Your task to perform on an android device: Open Chrome and go to settings Image 0: 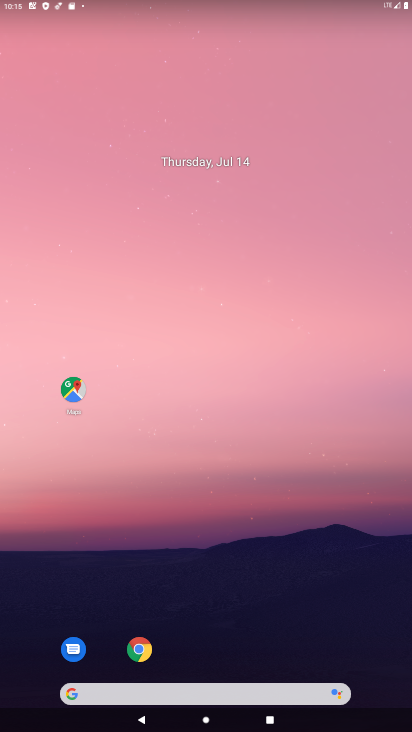
Step 0: click (152, 656)
Your task to perform on an android device: Open Chrome and go to settings Image 1: 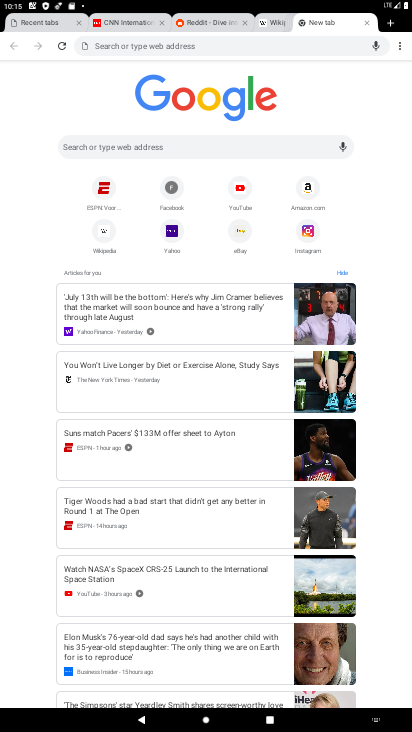
Step 1: click (401, 44)
Your task to perform on an android device: Open Chrome and go to settings Image 2: 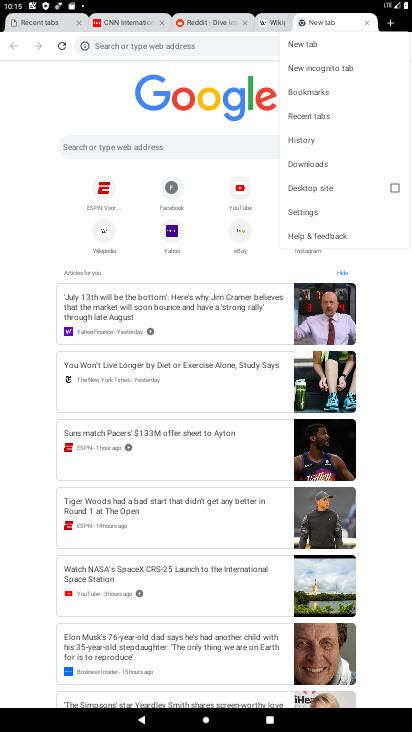
Step 2: click (347, 209)
Your task to perform on an android device: Open Chrome and go to settings Image 3: 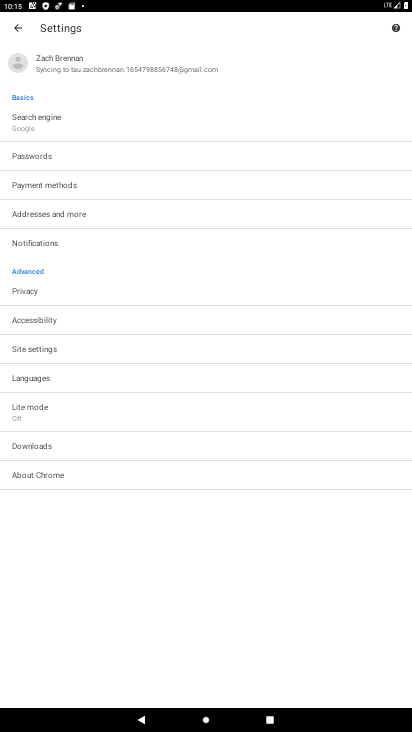
Step 3: task complete